Your task to perform on an android device: change timer sound Image 0: 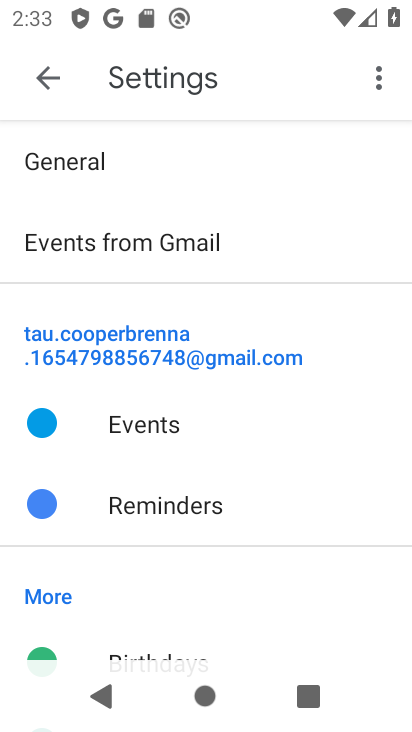
Step 0: press back button
Your task to perform on an android device: change timer sound Image 1: 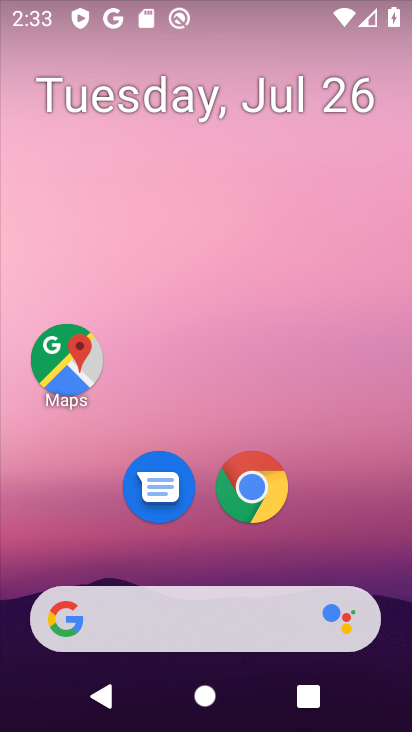
Step 1: drag from (75, 556) to (192, 52)
Your task to perform on an android device: change timer sound Image 2: 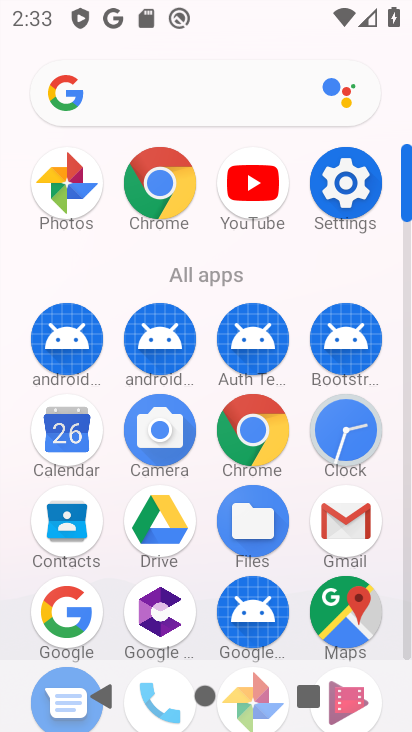
Step 2: click (336, 459)
Your task to perform on an android device: change timer sound Image 3: 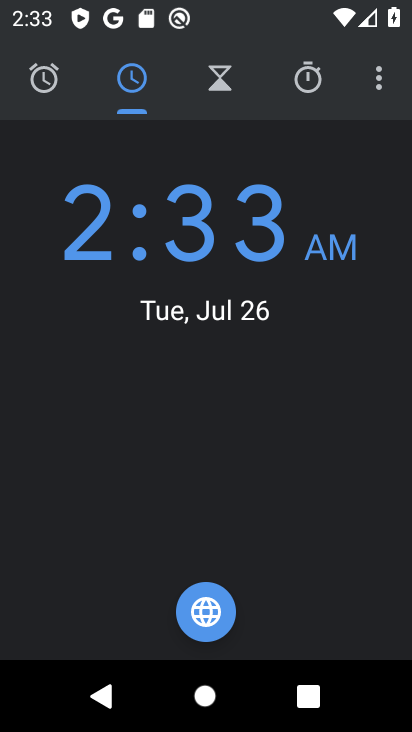
Step 3: click (380, 66)
Your task to perform on an android device: change timer sound Image 4: 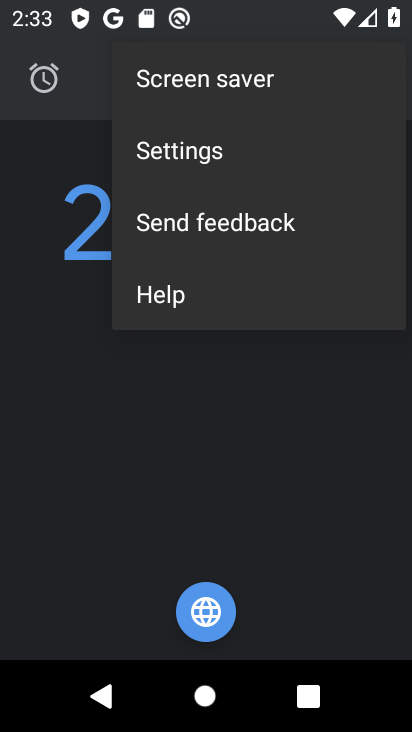
Step 4: click (189, 154)
Your task to perform on an android device: change timer sound Image 5: 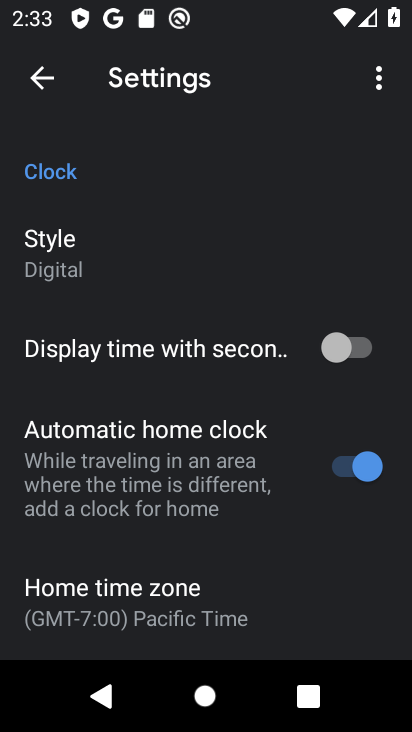
Step 5: drag from (105, 569) to (188, 176)
Your task to perform on an android device: change timer sound Image 6: 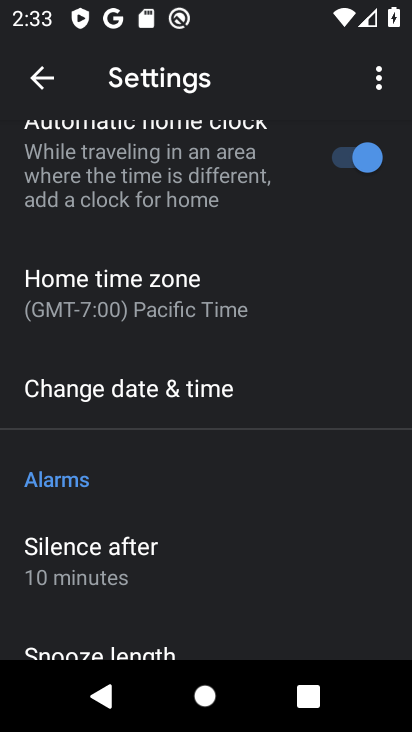
Step 6: drag from (172, 586) to (237, 84)
Your task to perform on an android device: change timer sound Image 7: 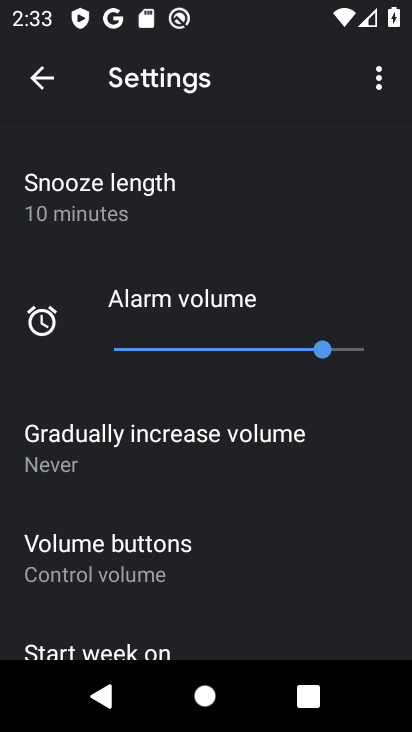
Step 7: drag from (204, 435) to (265, 168)
Your task to perform on an android device: change timer sound Image 8: 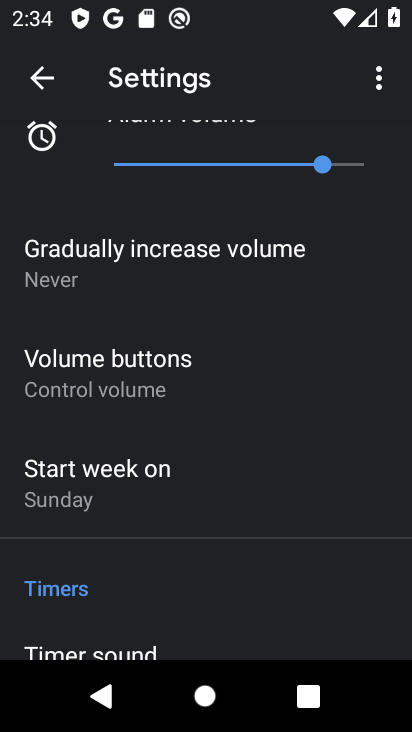
Step 8: drag from (107, 617) to (196, 190)
Your task to perform on an android device: change timer sound Image 9: 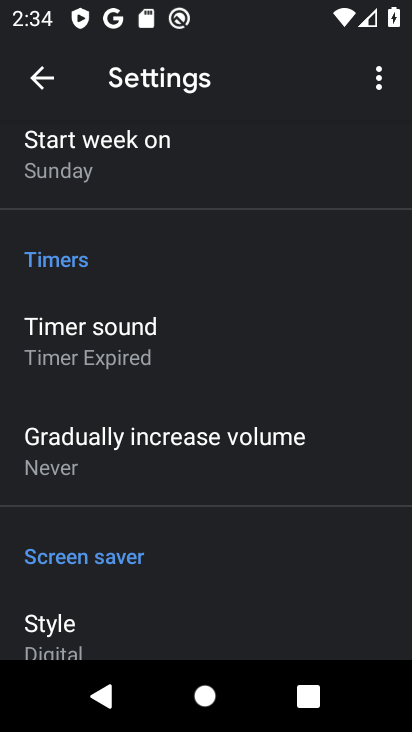
Step 9: click (109, 356)
Your task to perform on an android device: change timer sound Image 10: 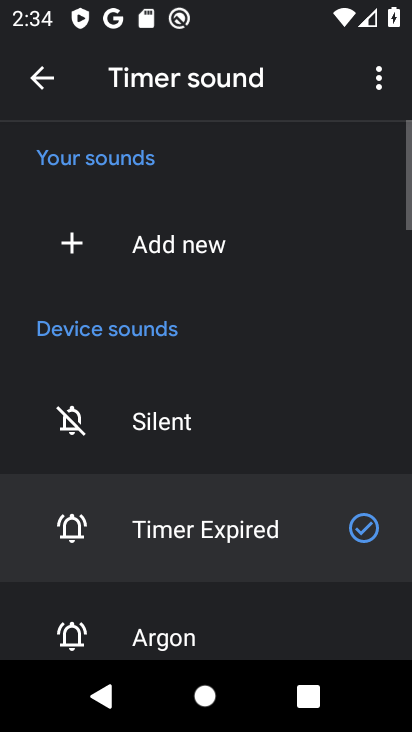
Step 10: drag from (157, 616) to (225, 220)
Your task to perform on an android device: change timer sound Image 11: 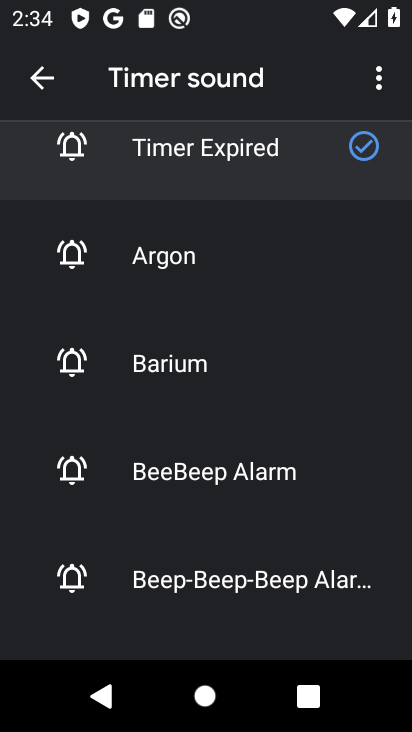
Step 11: click (176, 261)
Your task to perform on an android device: change timer sound Image 12: 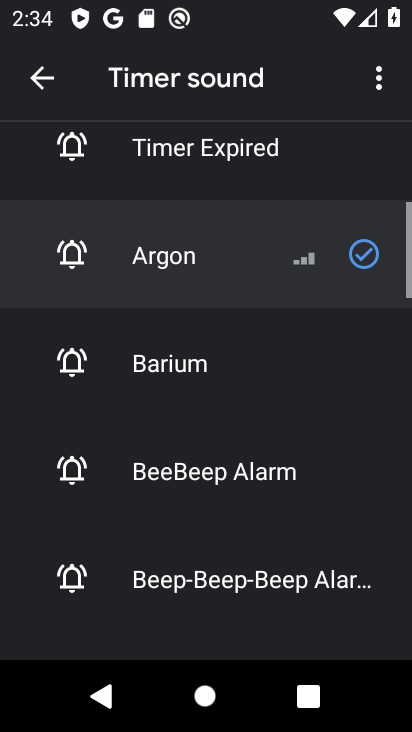
Step 12: task complete